Your task to perform on an android device: What's on my calendar today? Image 0: 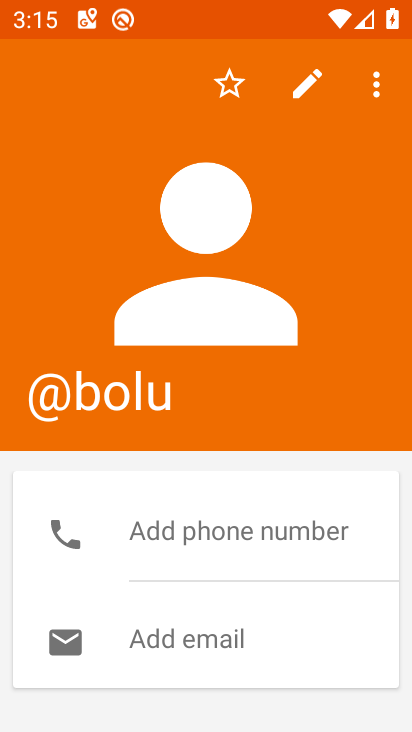
Step 0: press home button
Your task to perform on an android device: What's on my calendar today? Image 1: 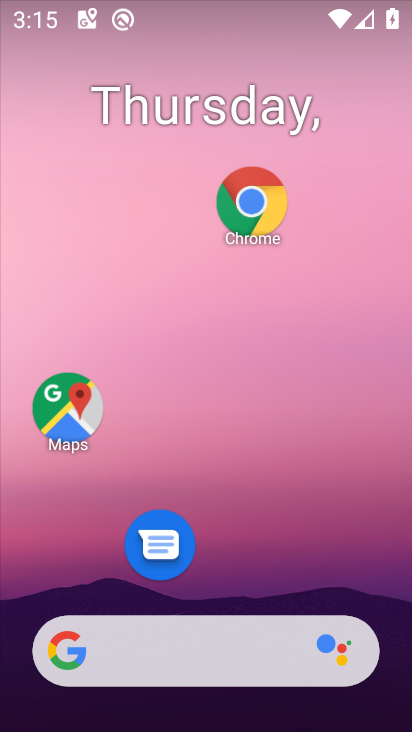
Step 1: drag from (169, 608) to (172, 382)
Your task to perform on an android device: What's on my calendar today? Image 2: 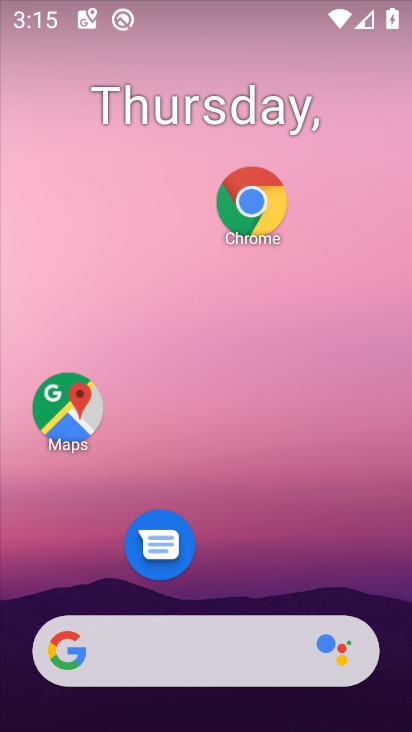
Step 2: drag from (194, 575) to (199, 265)
Your task to perform on an android device: What's on my calendar today? Image 3: 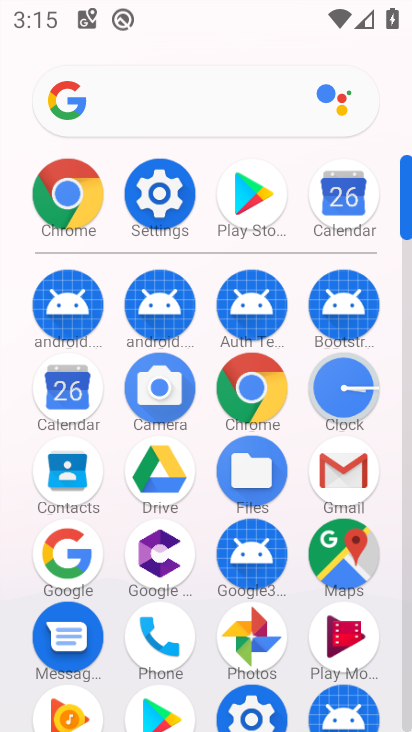
Step 3: click (345, 208)
Your task to perform on an android device: What's on my calendar today? Image 4: 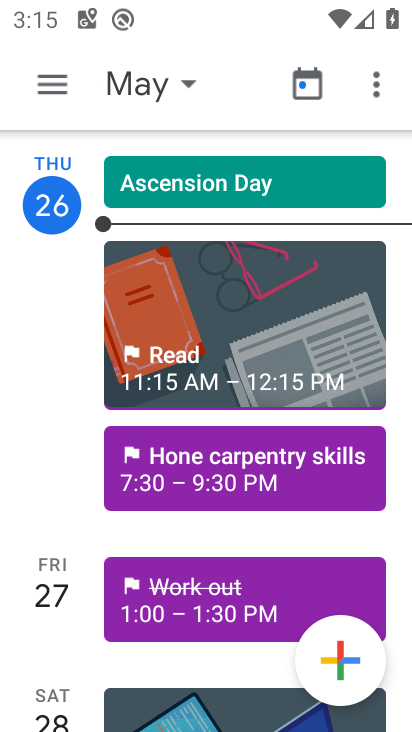
Step 4: task complete